Your task to perform on an android device: Go to Android settings Image 0: 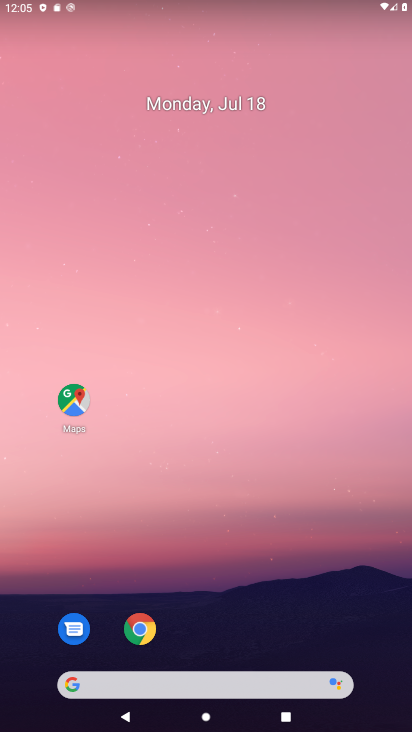
Step 0: press home button
Your task to perform on an android device: Go to Android settings Image 1: 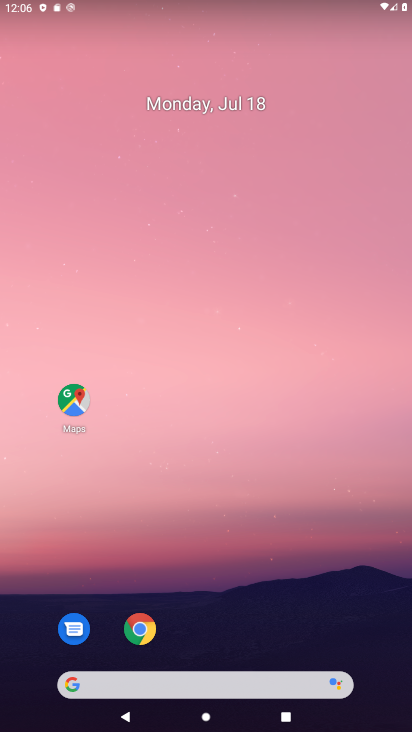
Step 1: drag from (218, 628) to (155, 141)
Your task to perform on an android device: Go to Android settings Image 2: 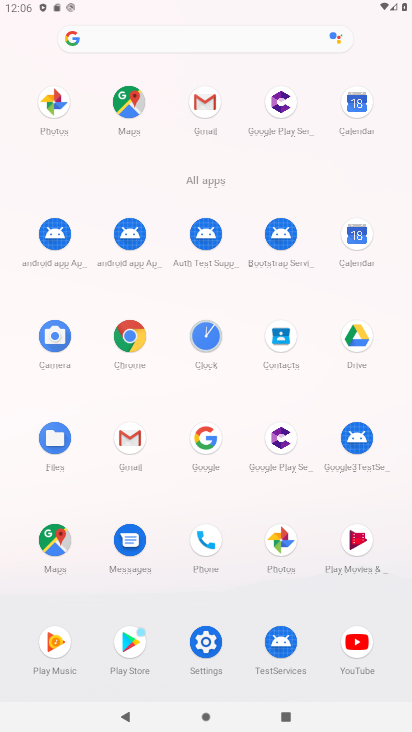
Step 2: click (213, 646)
Your task to perform on an android device: Go to Android settings Image 3: 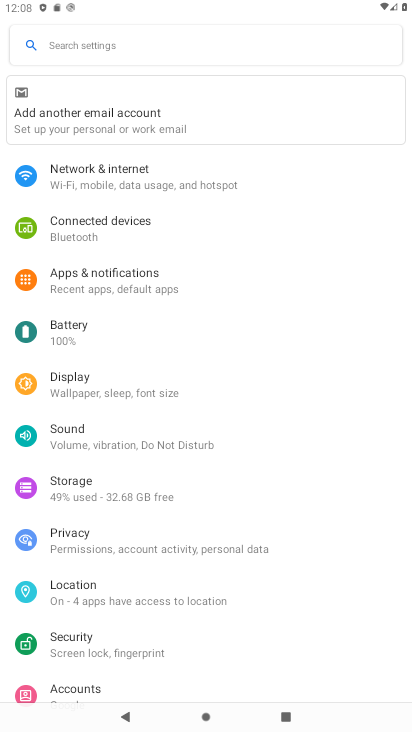
Step 3: drag from (329, 589) to (406, 11)
Your task to perform on an android device: Go to Android settings Image 4: 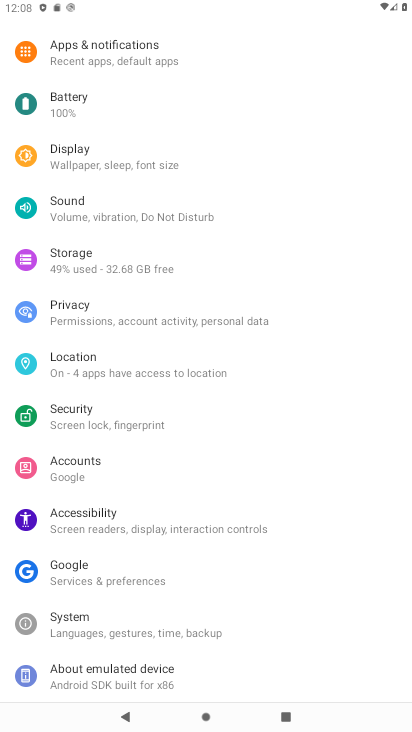
Step 4: click (145, 689)
Your task to perform on an android device: Go to Android settings Image 5: 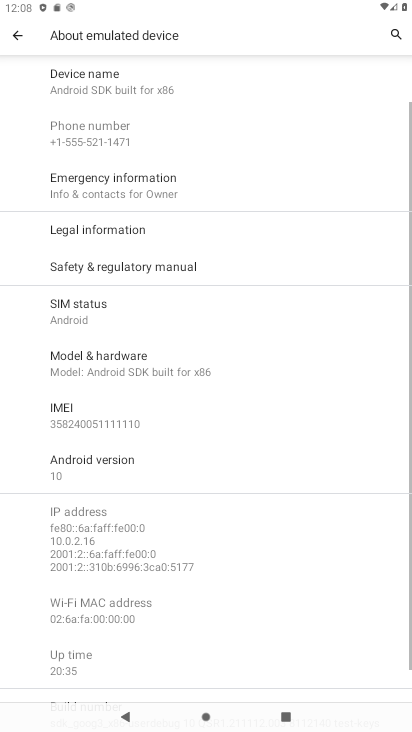
Step 5: click (125, 468)
Your task to perform on an android device: Go to Android settings Image 6: 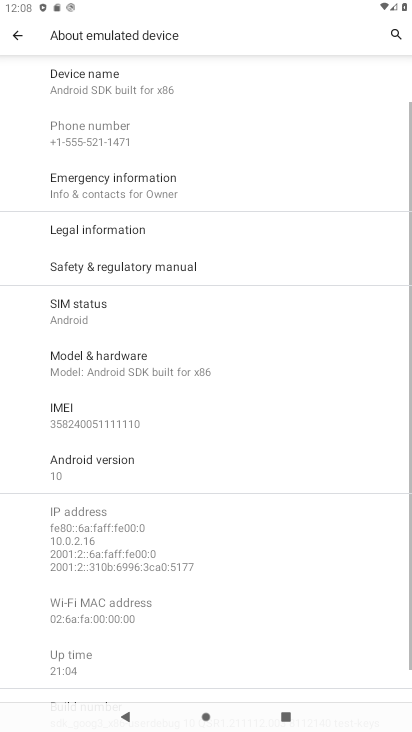
Step 6: click (126, 461)
Your task to perform on an android device: Go to Android settings Image 7: 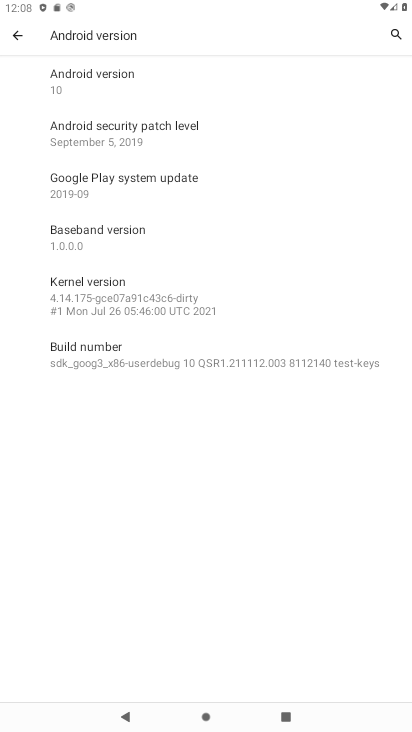
Step 7: task complete